Your task to perform on an android device: Open sound settings Image 0: 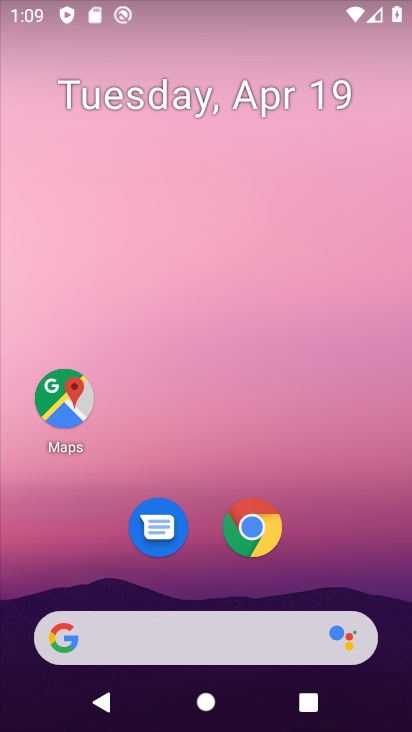
Step 0: drag from (299, 594) to (292, 17)
Your task to perform on an android device: Open sound settings Image 1: 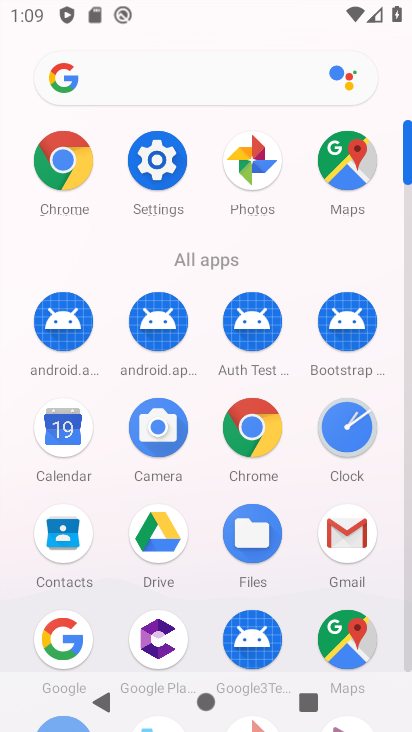
Step 1: click (165, 151)
Your task to perform on an android device: Open sound settings Image 2: 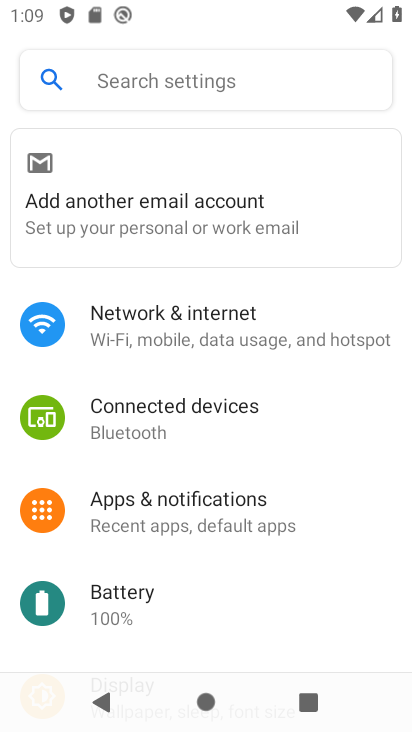
Step 2: drag from (237, 598) to (164, 284)
Your task to perform on an android device: Open sound settings Image 3: 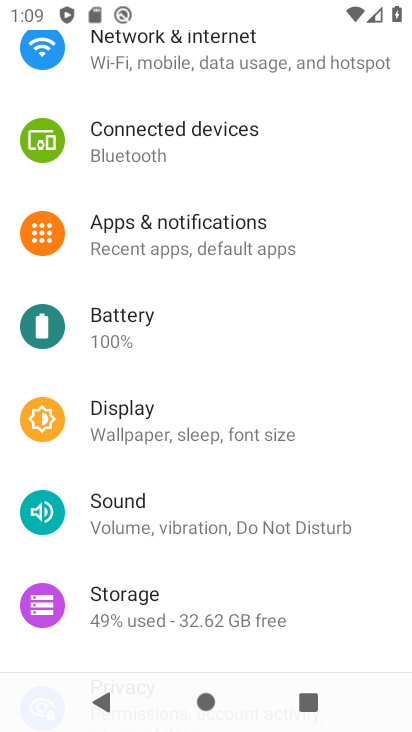
Step 3: click (154, 544)
Your task to perform on an android device: Open sound settings Image 4: 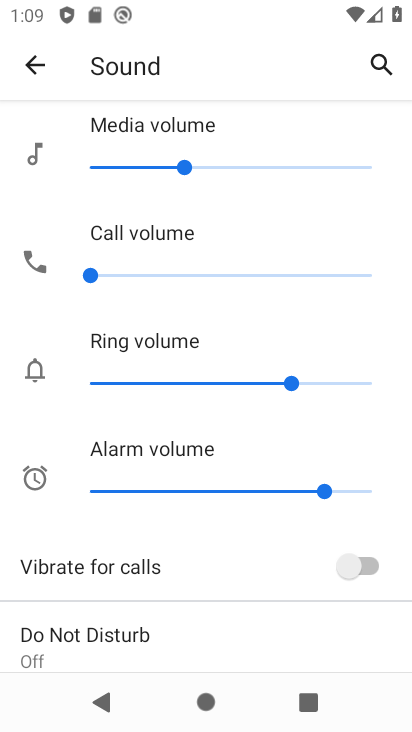
Step 4: task complete